Your task to perform on an android device: snooze an email in the gmail app Image 0: 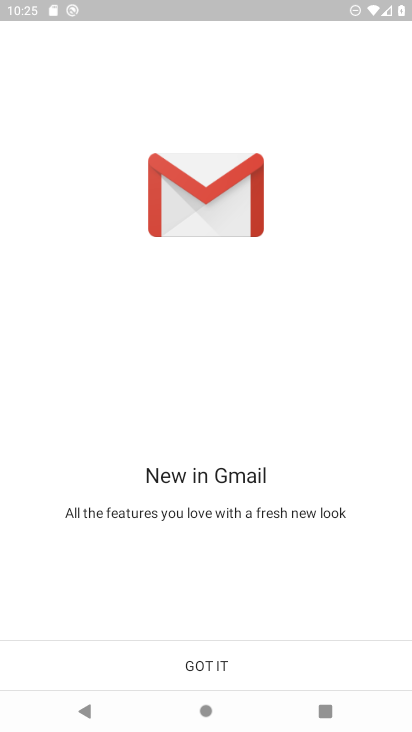
Step 0: press home button
Your task to perform on an android device: snooze an email in the gmail app Image 1: 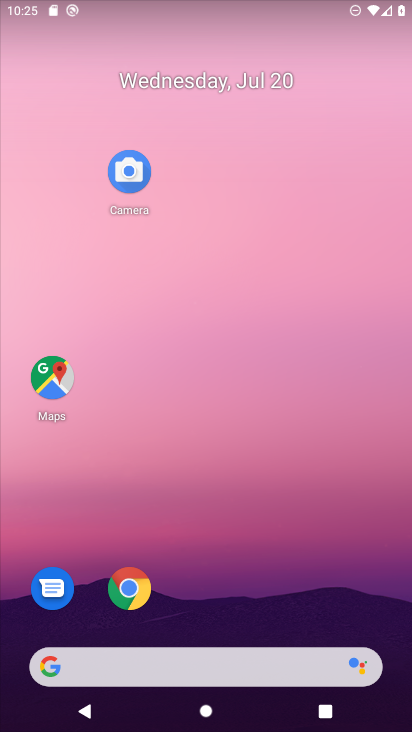
Step 1: drag from (277, 598) to (287, 104)
Your task to perform on an android device: snooze an email in the gmail app Image 2: 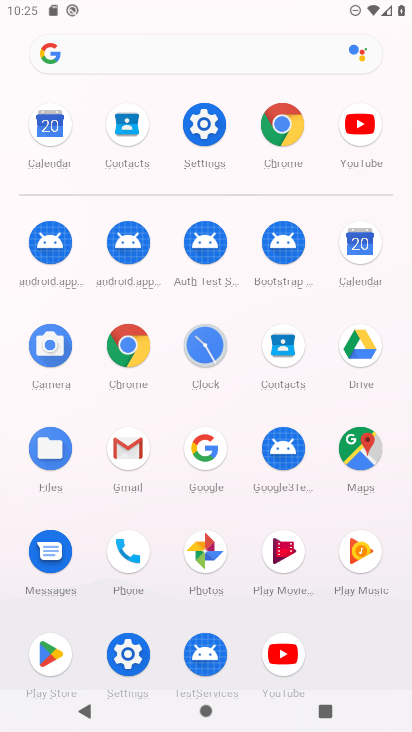
Step 2: click (131, 444)
Your task to perform on an android device: snooze an email in the gmail app Image 3: 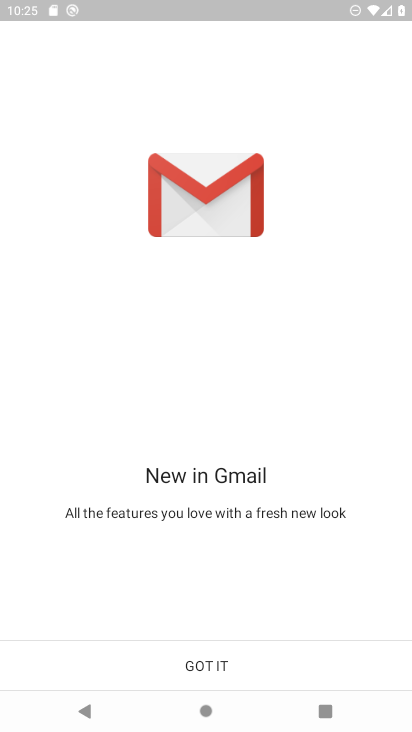
Step 3: click (207, 666)
Your task to perform on an android device: snooze an email in the gmail app Image 4: 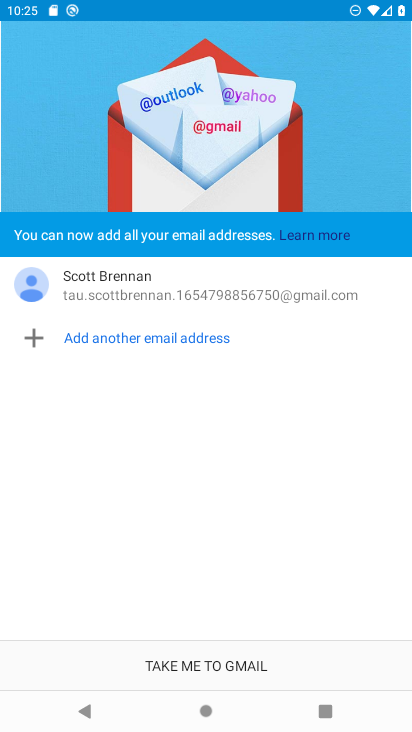
Step 4: click (205, 666)
Your task to perform on an android device: snooze an email in the gmail app Image 5: 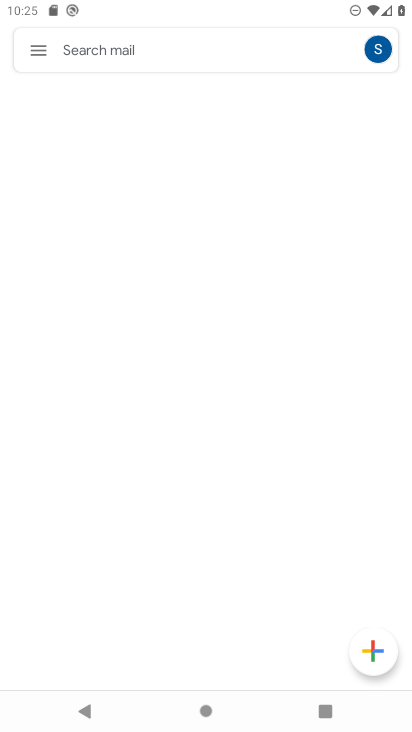
Step 5: click (40, 46)
Your task to perform on an android device: snooze an email in the gmail app Image 6: 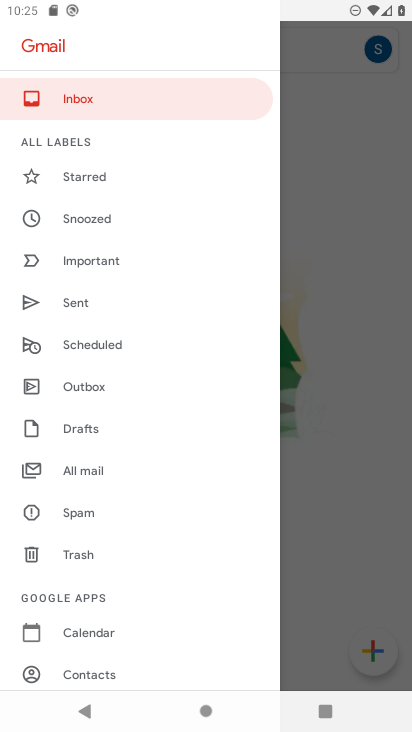
Step 6: click (99, 215)
Your task to perform on an android device: snooze an email in the gmail app Image 7: 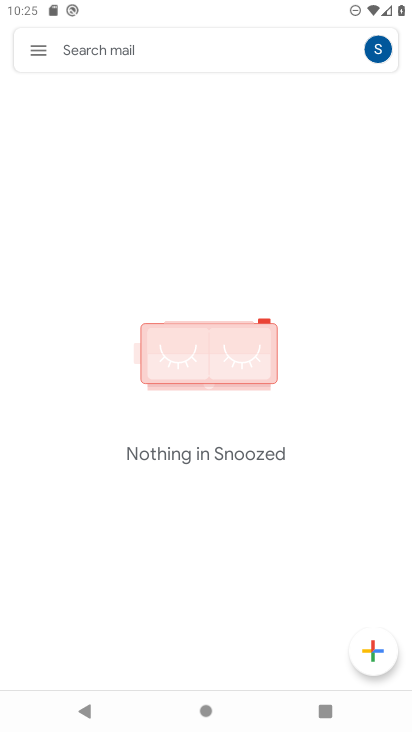
Step 7: click (36, 49)
Your task to perform on an android device: snooze an email in the gmail app Image 8: 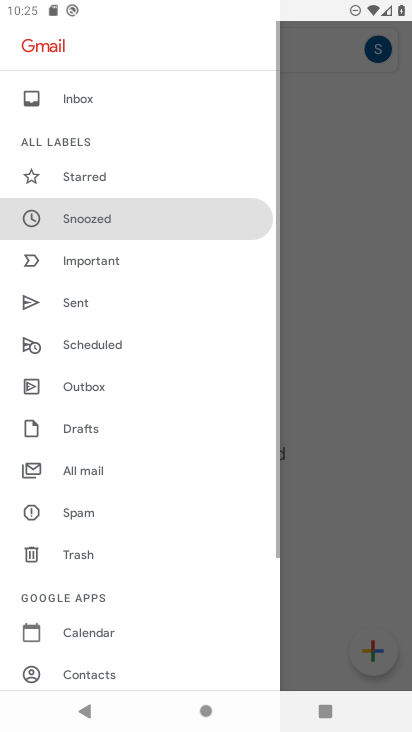
Step 8: click (88, 464)
Your task to perform on an android device: snooze an email in the gmail app Image 9: 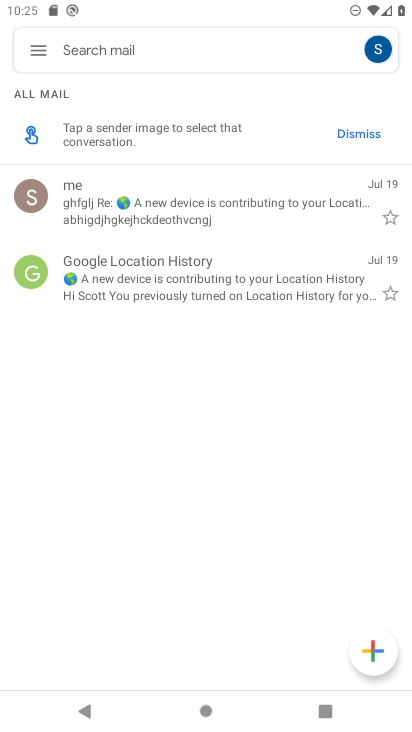
Step 9: click (108, 203)
Your task to perform on an android device: snooze an email in the gmail app Image 10: 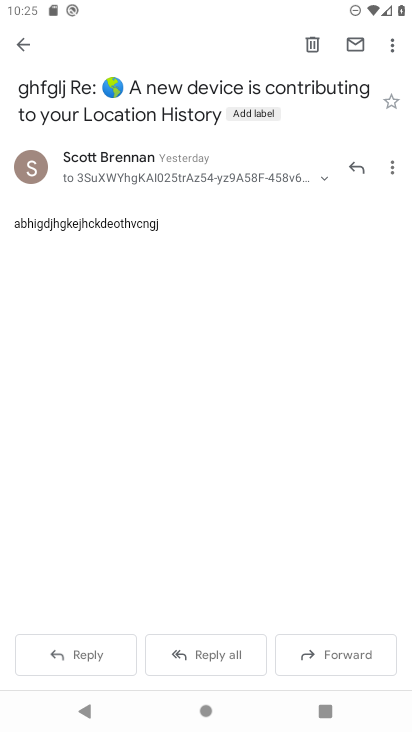
Step 10: click (393, 49)
Your task to perform on an android device: snooze an email in the gmail app Image 11: 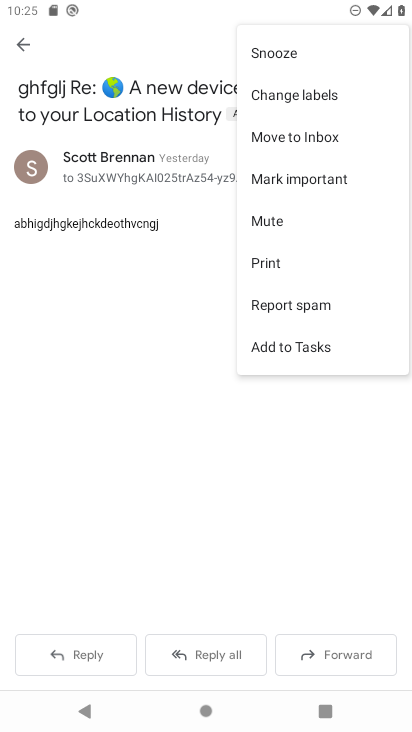
Step 11: click (296, 53)
Your task to perform on an android device: snooze an email in the gmail app Image 12: 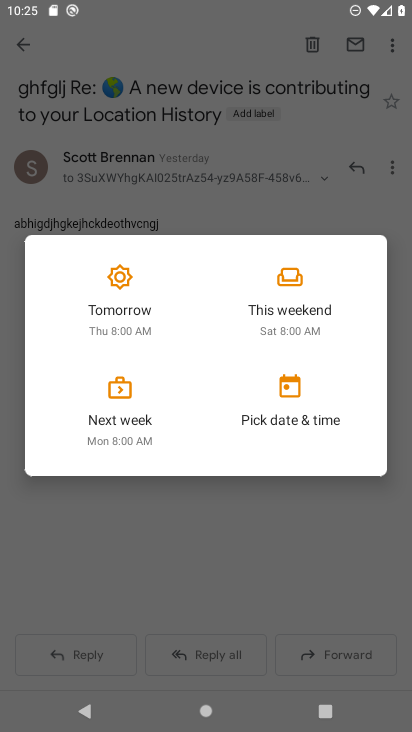
Step 12: click (307, 282)
Your task to perform on an android device: snooze an email in the gmail app Image 13: 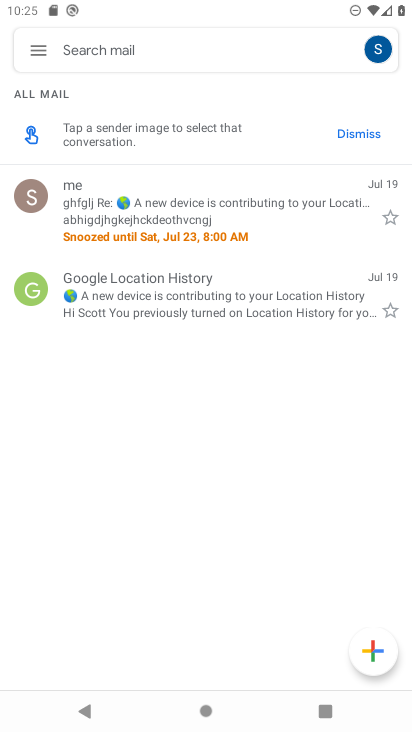
Step 13: task complete